Your task to perform on an android device: remove spam from my inbox in the gmail app Image 0: 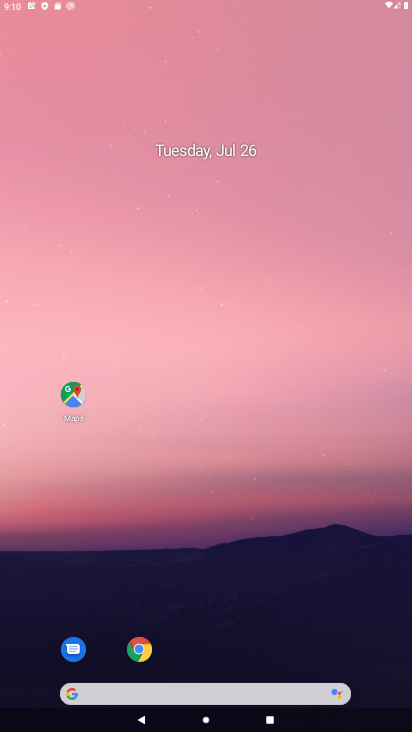
Step 0: drag from (278, 227) to (273, 125)
Your task to perform on an android device: remove spam from my inbox in the gmail app Image 1: 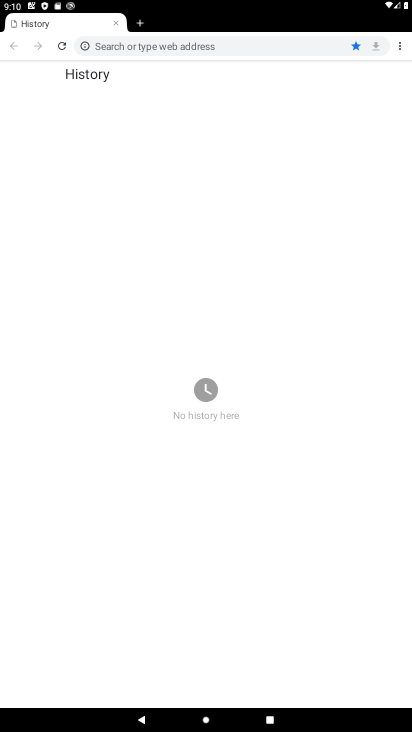
Step 1: press home button
Your task to perform on an android device: remove spam from my inbox in the gmail app Image 2: 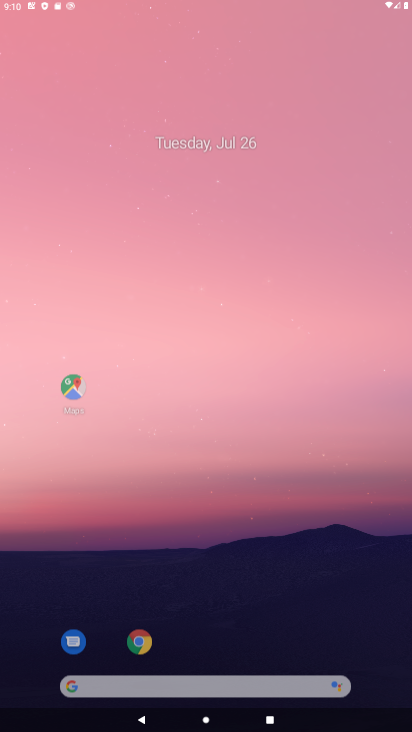
Step 2: drag from (168, 586) to (253, 182)
Your task to perform on an android device: remove spam from my inbox in the gmail app Image 3: 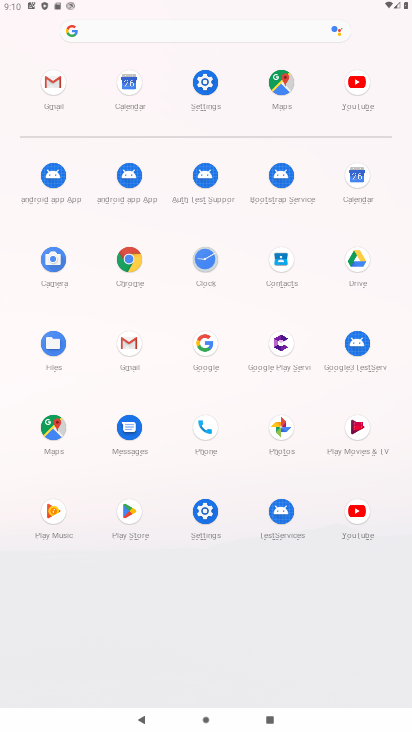
Step 3: click (130, 342)
Your task to perform on an android device: remove spam from my inbox in the gmail app Image 4: 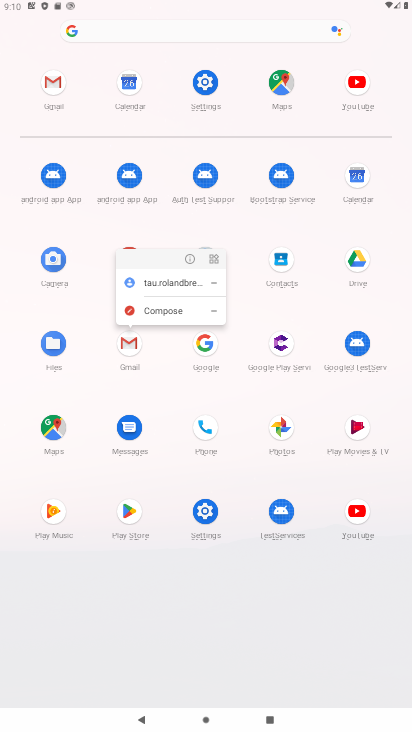
Step 4: click (190, 251)
Your task to perform on an android device: remove spam from my inbox in the gmail app Image 5: 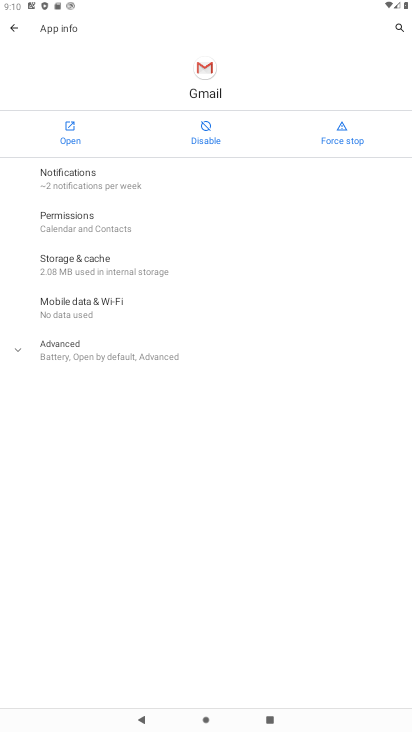
Step 5: click (74, 141)
Your task to perform on an android device: remove spam from my inbox in the gmail app Image 6: 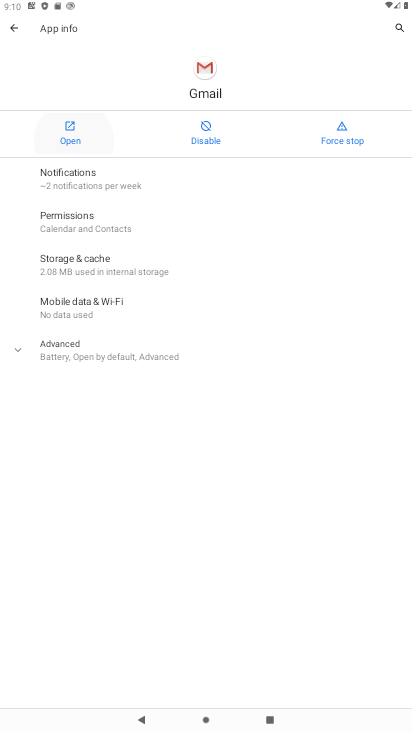
Step 6: click (74, 141)
Your task to perform on an android device: remove spam from my inbox in the gmail app Image 7: 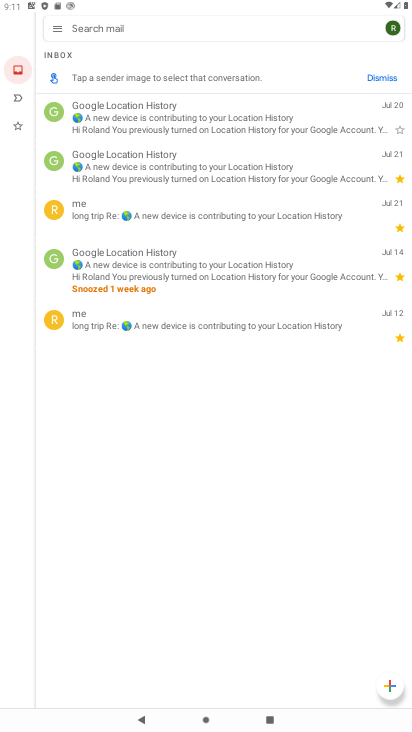
Step 7: click (55, 35)
Your task to perform on an android device: remove spam from my inbox in the gmail app Image 8: 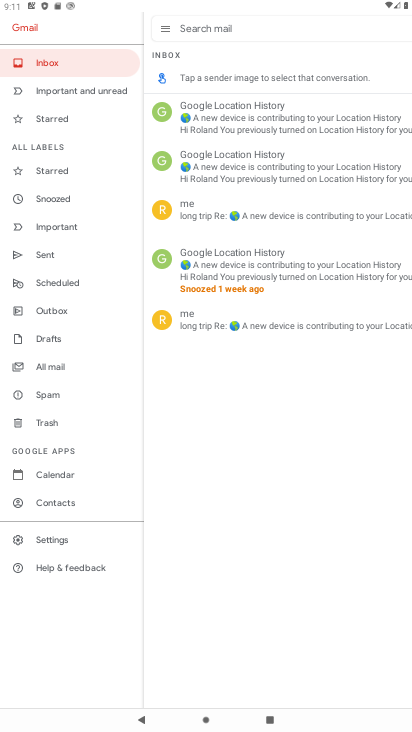
Step 8: click (32, 402)
Your task to perform on an android device: remove spam from my inbox in the gmail app Image 9: 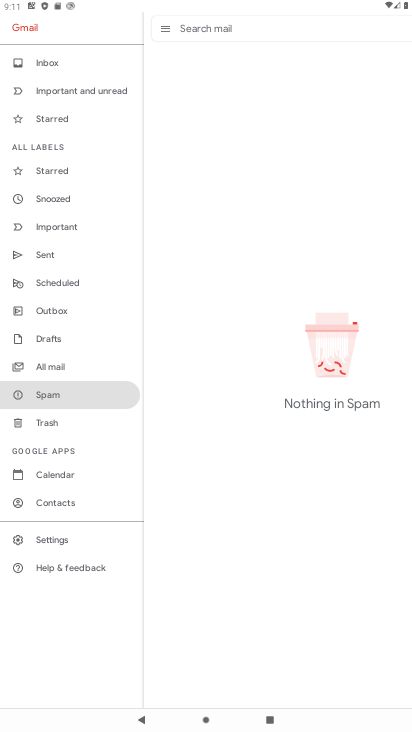
Step 9: task complete